Your task to perform on an android device: turn off picture-in-picture Image 0: 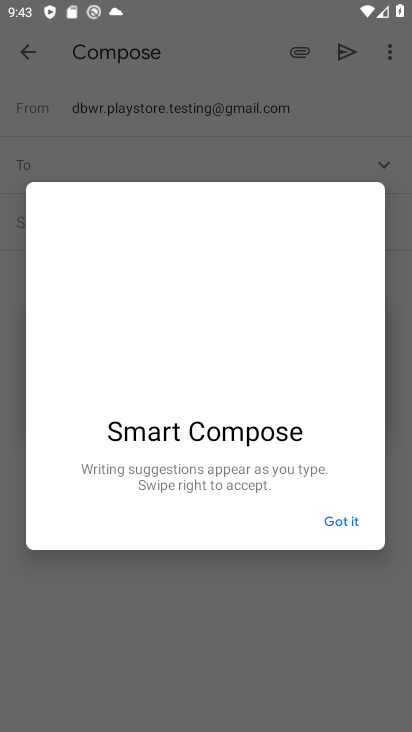
Step 0: press home button
Your task to perform on an android device: turn off picture-in-picture Image 1: 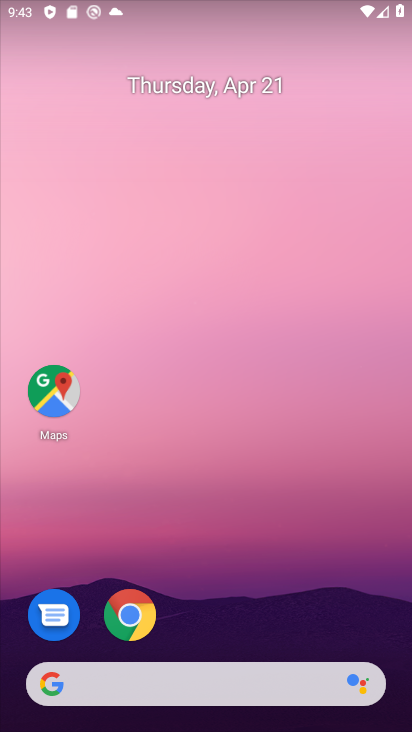
Step 1: click (136, 619)
Your task to perform on an android device: turn off picture-in-picture Image 2: 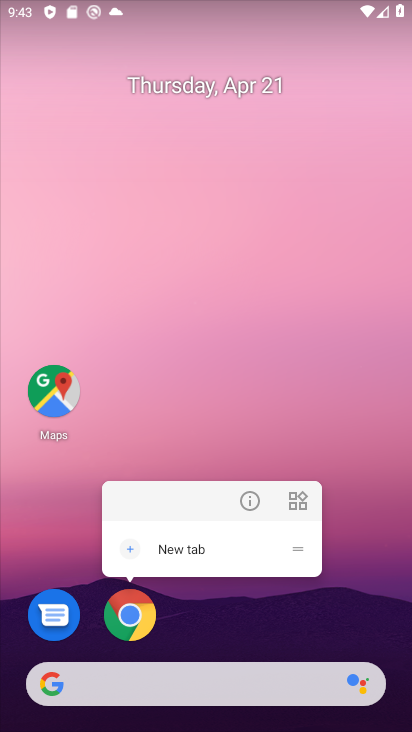
Step 2: click (251, 499)
Your task to perform on an android device: turn off picture-in-picture Image 3: 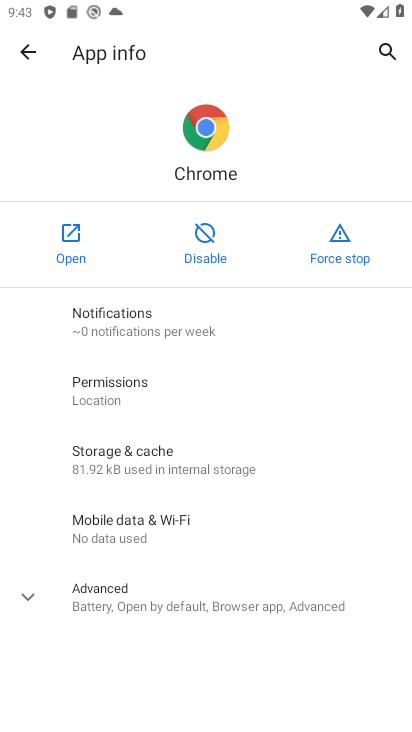
Step 3: click (97, 606)
Your task to perform on an android device: turn off picture-in-picture Image 4: 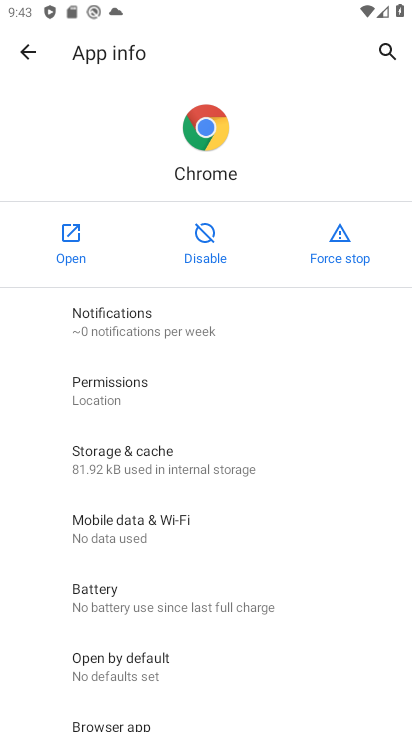
Step 4: drag from (188, 643) to (222, 337)
Your task to perform on an android device: turn off picture-in-picture Image 5: 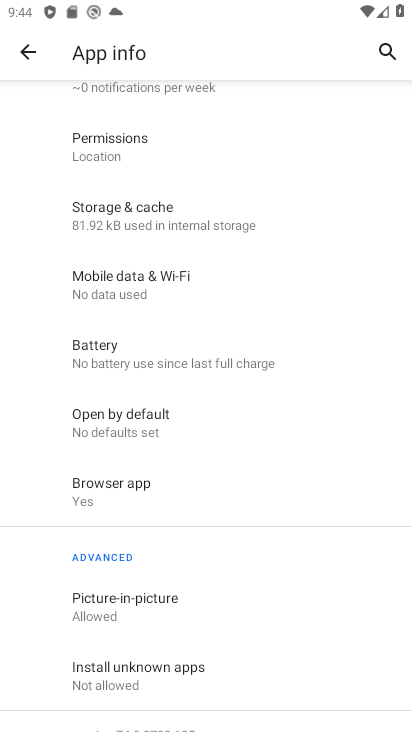
Step 5: click (145, 611)
Your task to perform on an android device: turn off picture-in-picture Image 6: 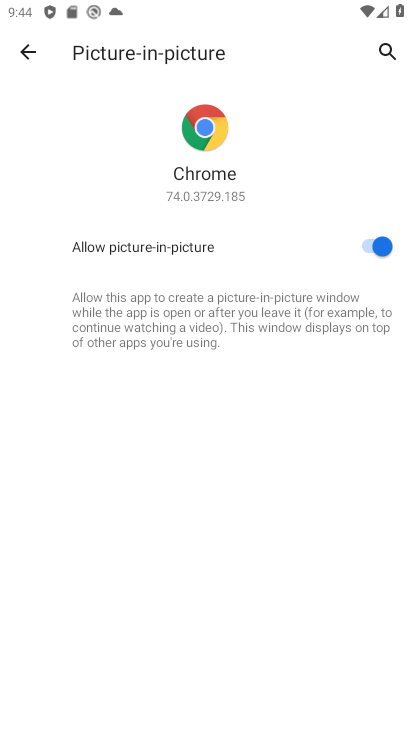
Step 6: click (363, 239)
Your task to perform on an android device: turn off picture-in-picture Image 7: 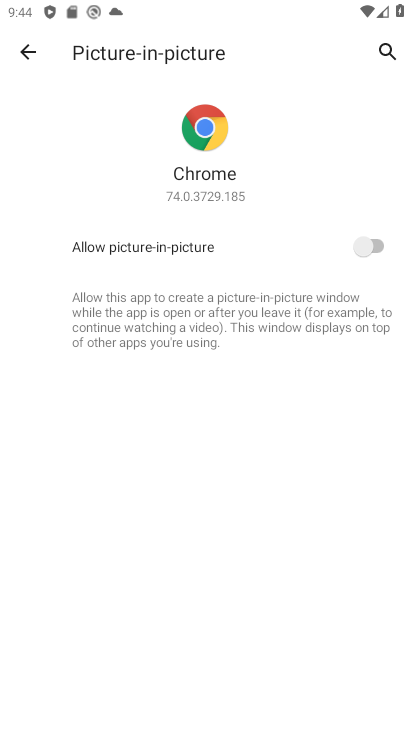
Step 7: task complete